Your task to perform on an android device: Search for sushi restaurants on Maps Image 0: 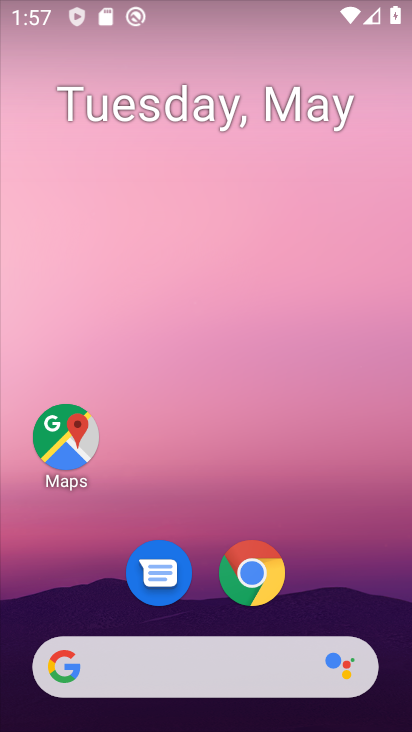
Step 0: drag from (211, 526) to (213, 60)
Your task to perform on an android device: Search for sushi restaurants on Maps Image 1: 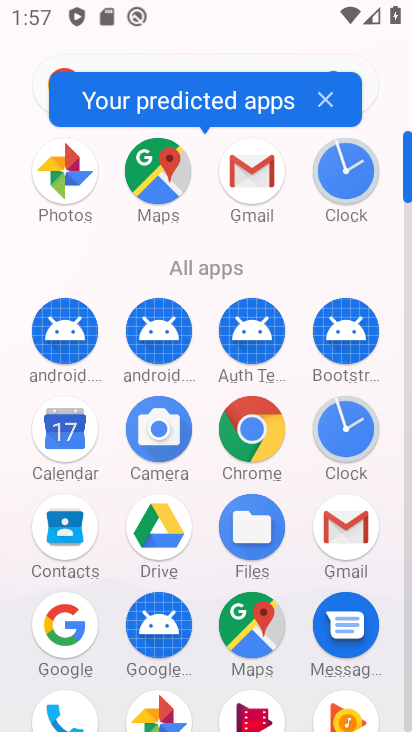
Step 1: click (164, 183)
Your task to perform on an android device: Search for sushi restaurants on Maps Image 2: 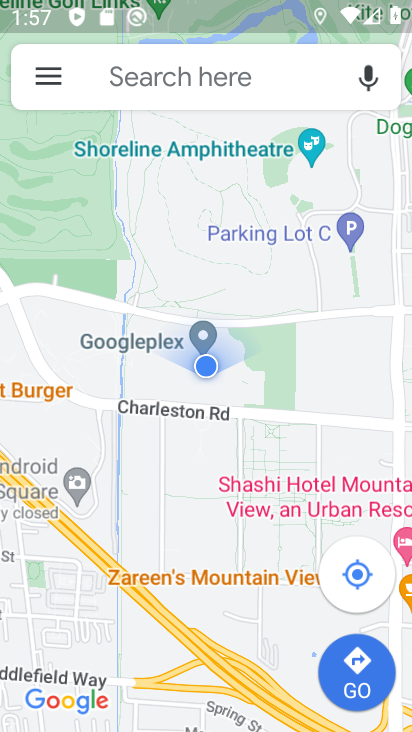
Step 2: click (144, 71)
Your task to perform on an android device: Search for sushi restaurants on Maps Image 3: 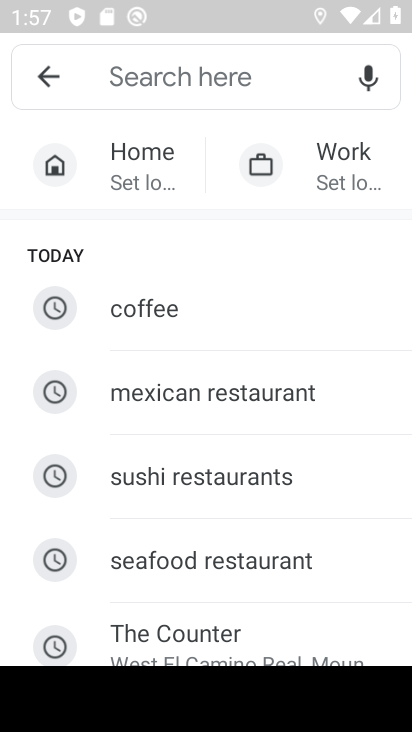
Step 3: click (168, 487)
Your task to perform on an android device: Search for sushi restaurants on Maps Image 4: 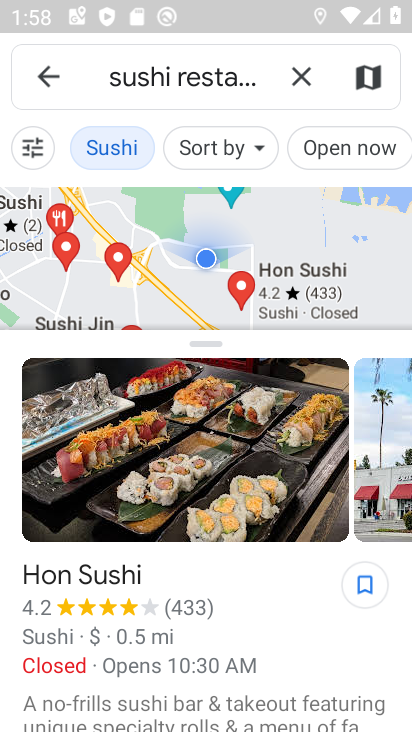
Step 4: task complete